Your task to perform on an android device: set an alarm Image 0: 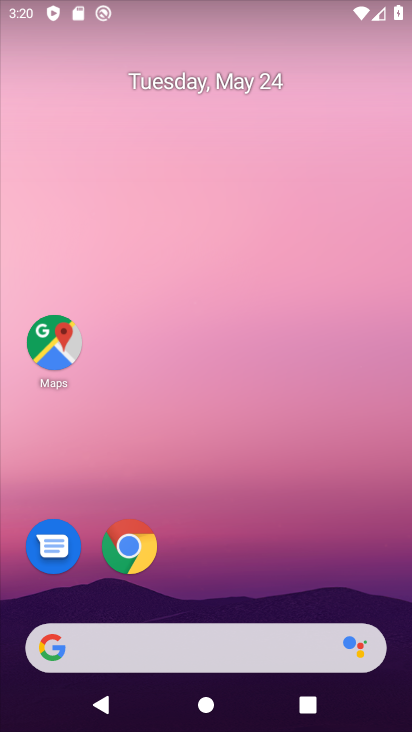
Step 0: drag from (259, 598) to (259, 125)
Your task to perform on an android device: set an alarm Image 1: 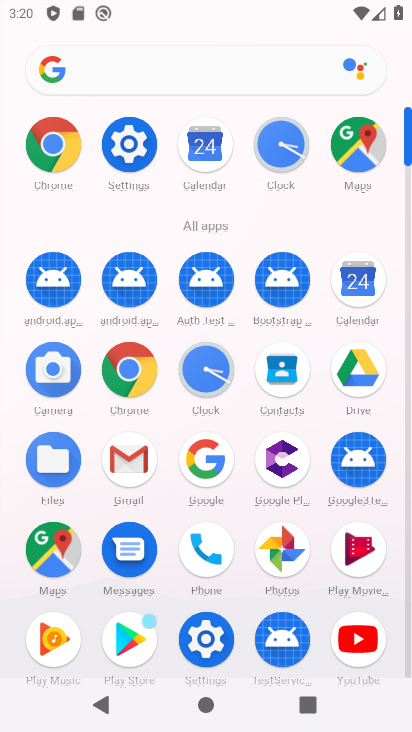
Step 1: click (285, 137)
Your task to perform on an android device: set an alarm Image 2: 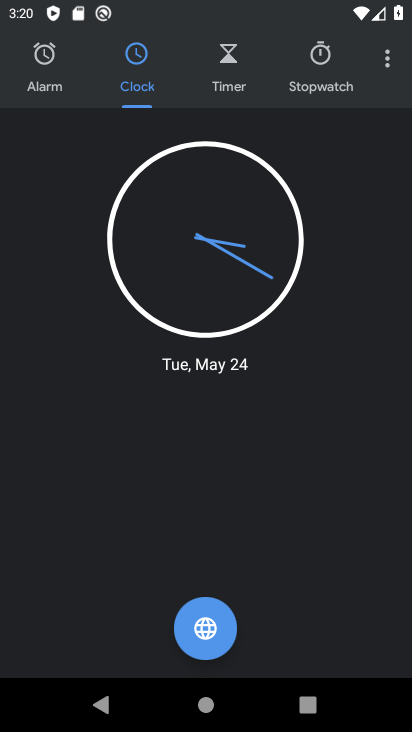
Step 2: click (29, 69)
Your task to perform on an android device: set an alarm Image 3: 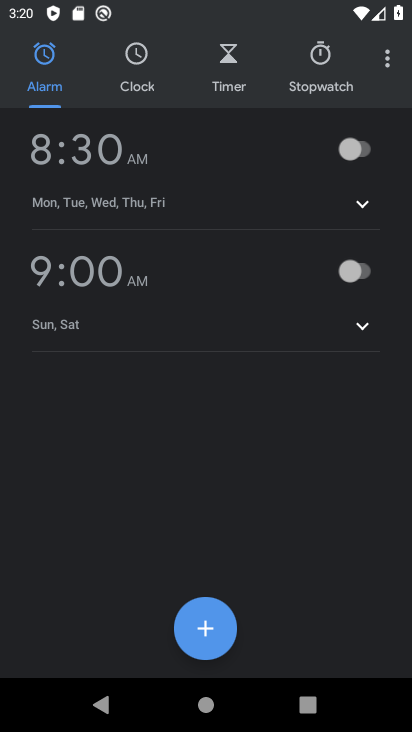
Step 3: click (352, 153)
Your task to perform on an android device: set an alarm Image 4: 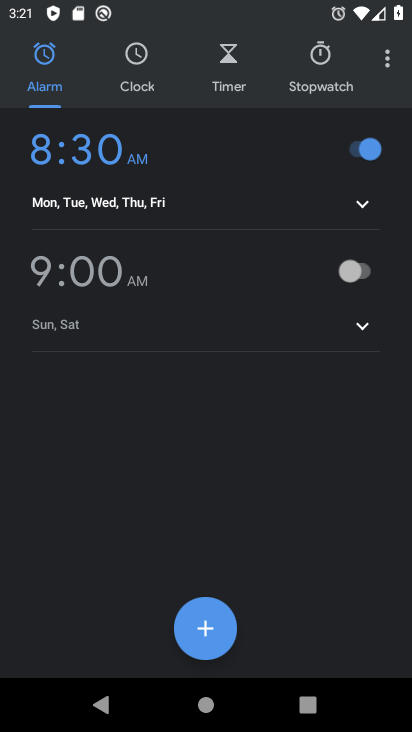
Step 4: task complete